Your task to perform on an android device: set an alarm Image 0: 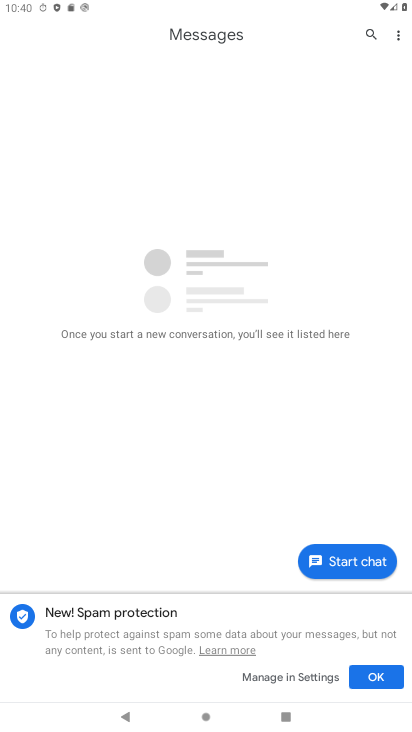
Step 0: press back button
Your task to perform on an android device: set an alarm Image 1: 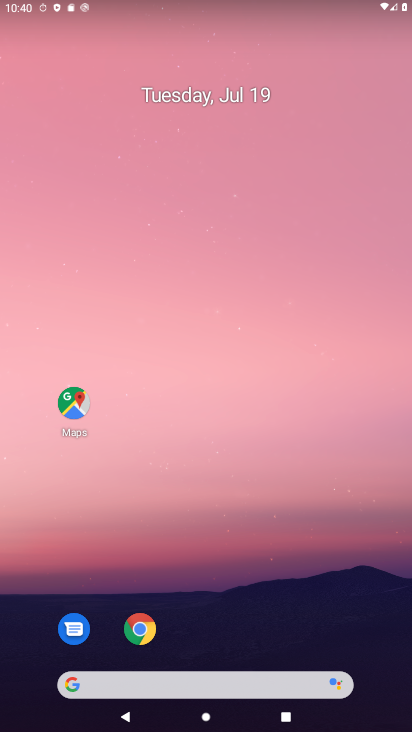
Step 1: drag from (230, 512) to (263, 148)
Your task to perform on an android device: set an alarm Image 2: 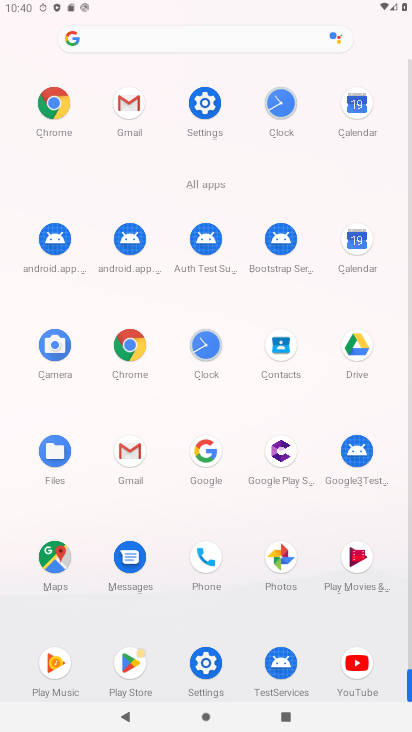
Step 2: click (207, 346)
Your task to perform on an android device: set an alarm Image 3: 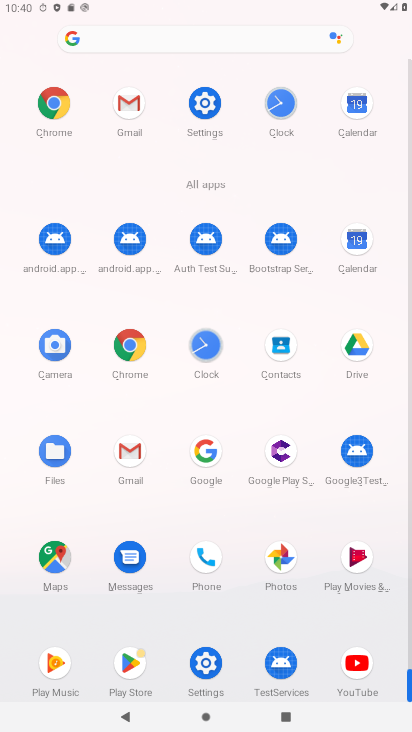
Step 3: click (207, 346)
Your task to perform on an android device: set an alarm Image 4: 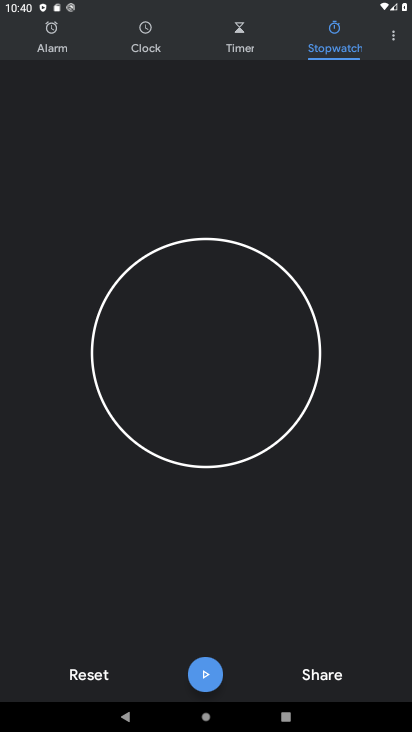
Step 4: click (51, 56)
Your task to perform on an android device: set an alarm Image 5: 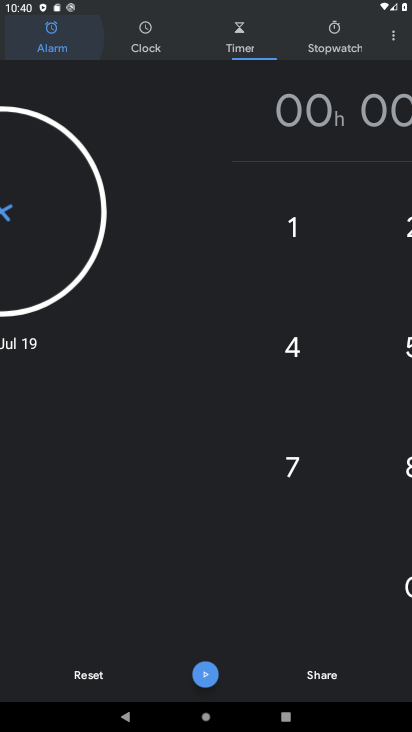
Step 5: click (52, 53)
Your task to perform on an android device: set an alarm Image 6: 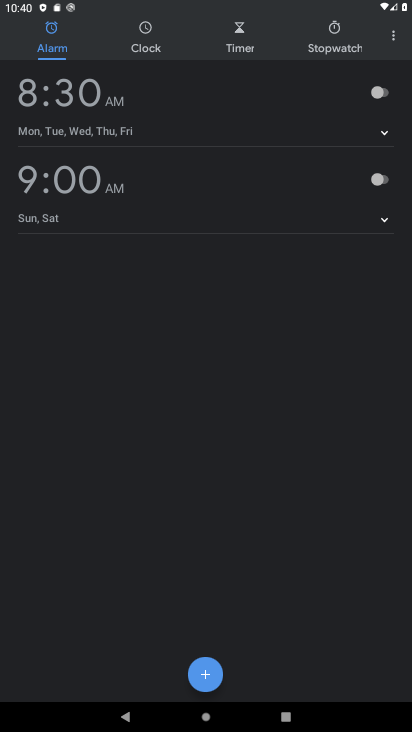
Step 6: click (375, 89)
Your task to perform on an android device: set an alarm Image 7: 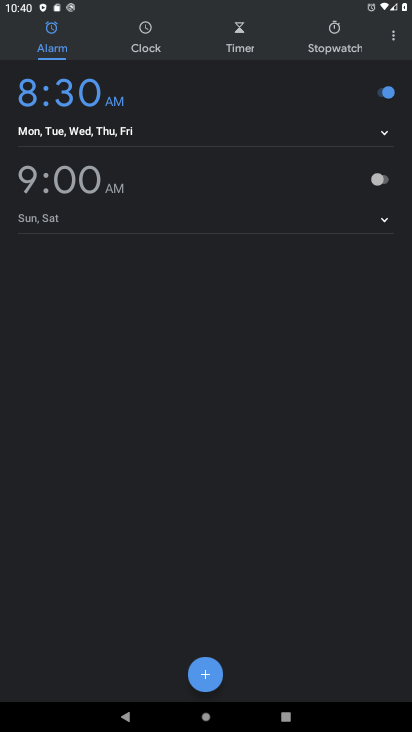
Step 7: task complete